Your task to perform on an android device: Open Google Maps Image 0: 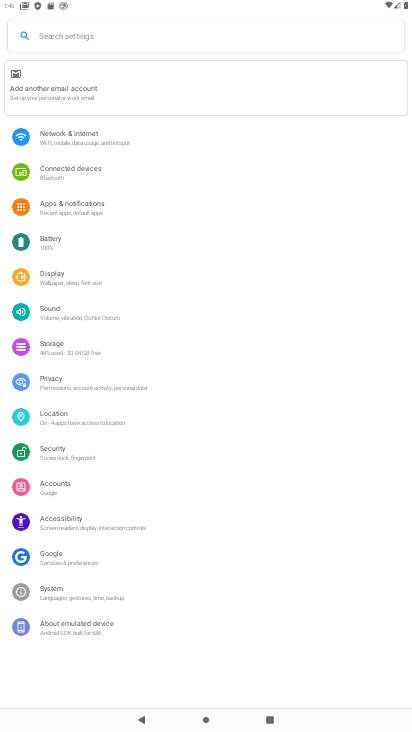
Step 0: press home button
Your task to perform on an android device: Open Google Maps Image 1: 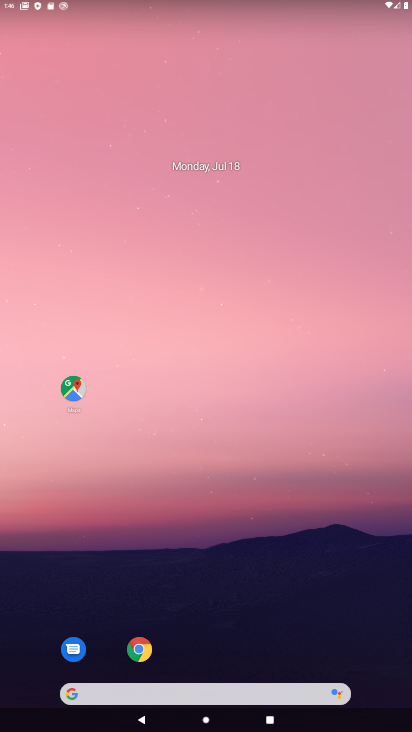
Step 1: drag from (199, 634) to (103, 138)
Your task to perform on an android device: Open Google Maps Image 2: 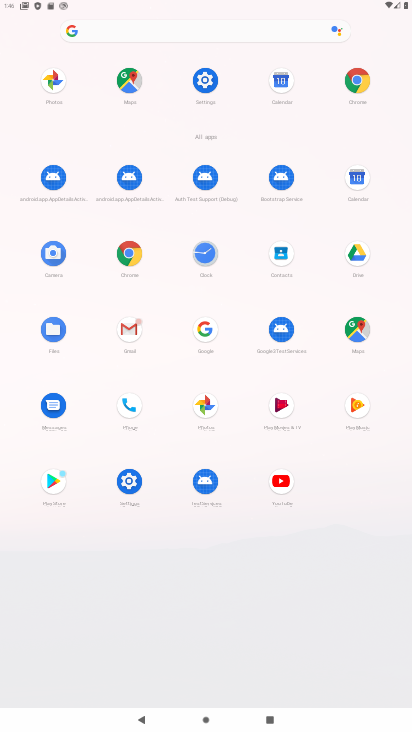
Step 2: click (356, 327)
Your task to perform on an android device: Open Google Maps Image 3: 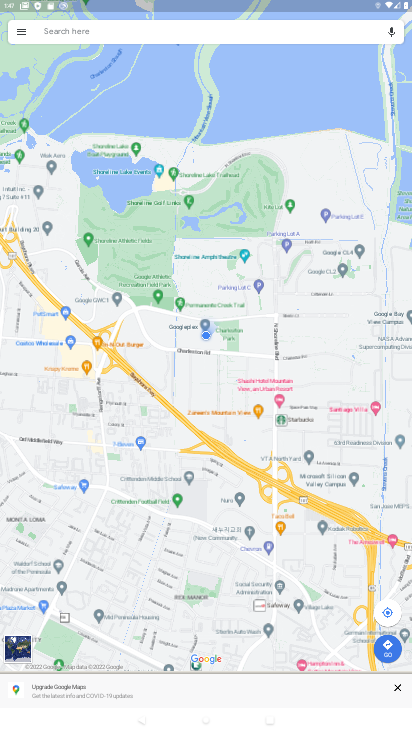
Step 3: task complete